Your task to perform on an android device: Show me popular games on the Play Store Image 0: 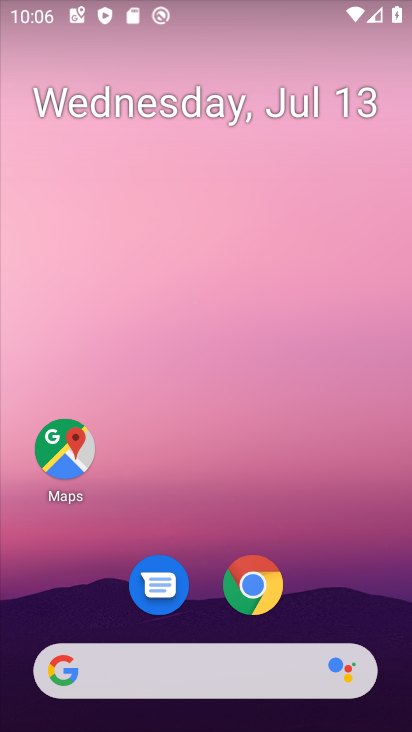
Step 0: drag from (326, 589) to (317, 4)
Your task to perform on an android device: Show me popular games on the Play Store Image 1: 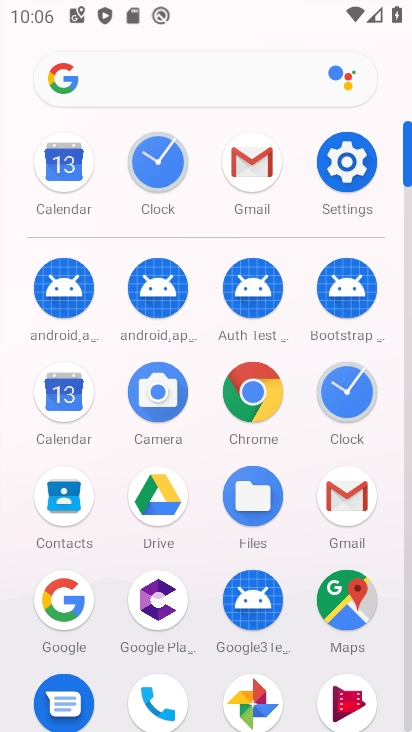
Step 1: drag from (201, 554) to (219, 170)
Your task to perform on an android device: Show me popular games on the Play Store Image 2: 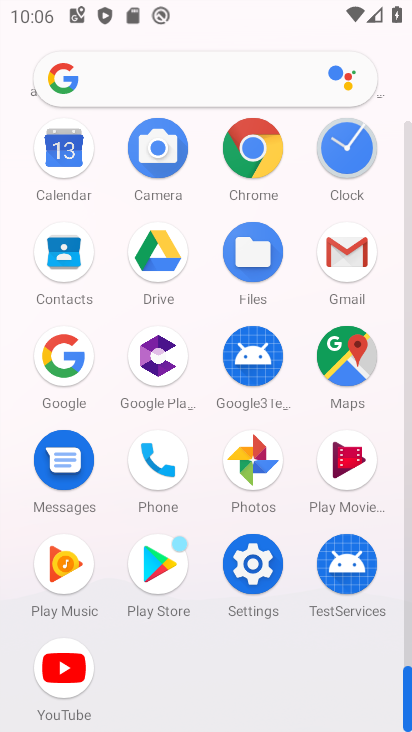
Step 2: click (161, 556)
Your task to perform on an android device: Show me popular games on the Play Store Image 3: 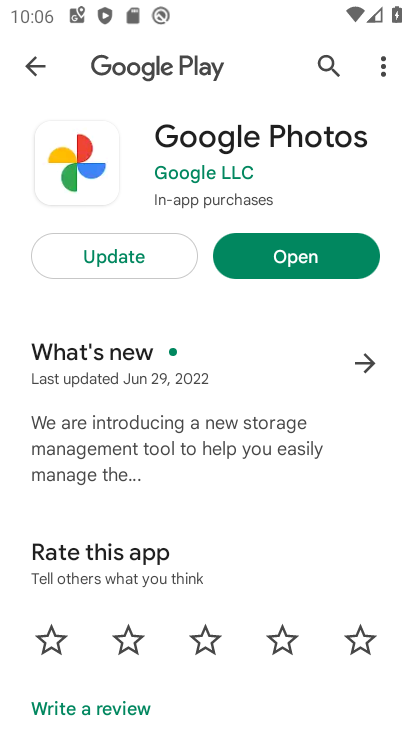
Step 3: press home button
Your task to perform on an android device: Show me popular games on the Play Store Image 4: 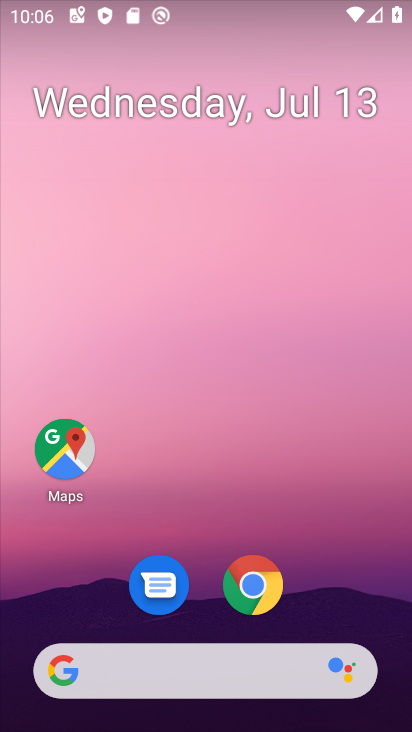
Step 4: drag from (306, 575) to (303, 0)
Your task to perform on an android device: Show me popular games on the Play Store Image 5: 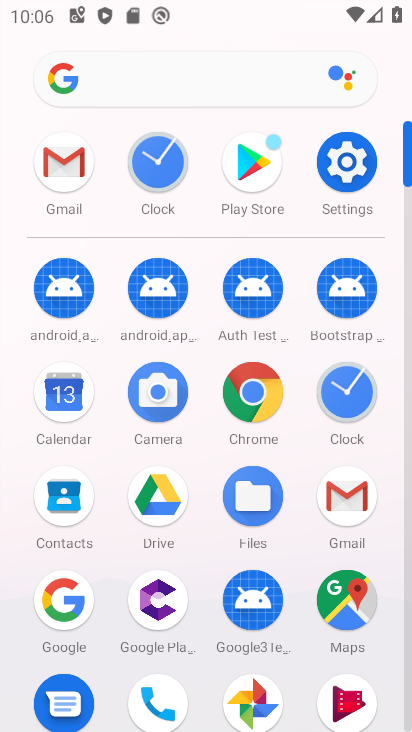
Step 5: click (244, 166)
Your task to perform on an android device: Show me popular games on the Play Store Image 6: 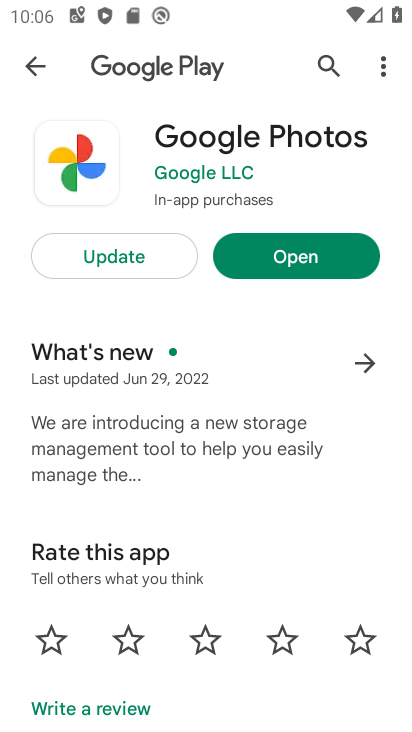
Step 6: click (38, 63)
Your task to perform on an android device: Show me popular games on the Play Store Image 7: 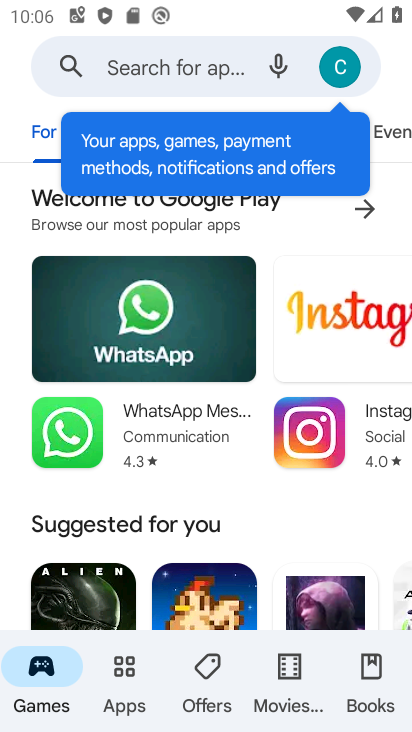
Step 7: drag from (287, 533) to (318, 175)
Your task to perform on an android device: Show me popular games on the Play Store Image 8: 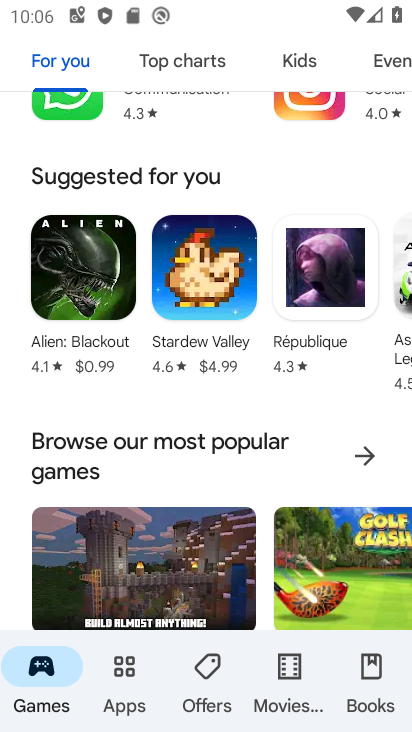
Step 8: click (360, 455)
Your task to perform on an android device: Show me popular games on the Play Store Image 9: 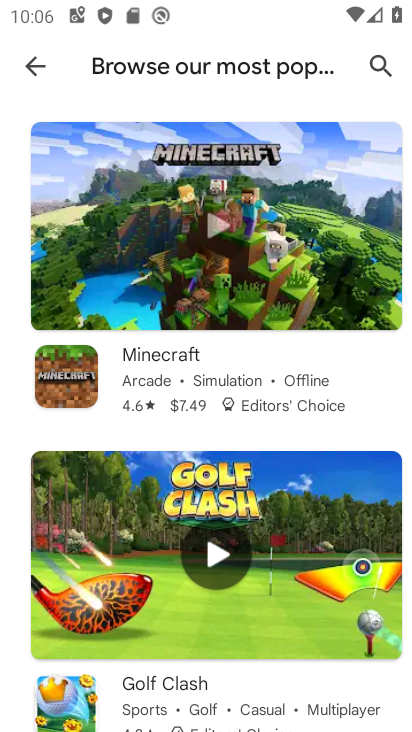
Step 9: task complete